Your task to perform on an android device: check android version Image 0: 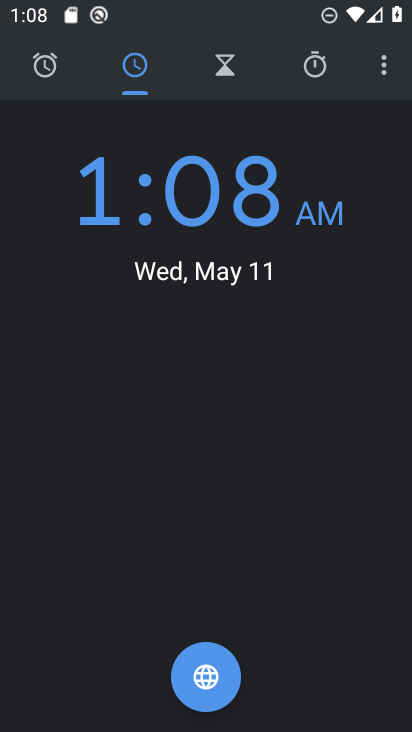
Step 0: press home button
Your task to perform on an android device: check android version Image 1: 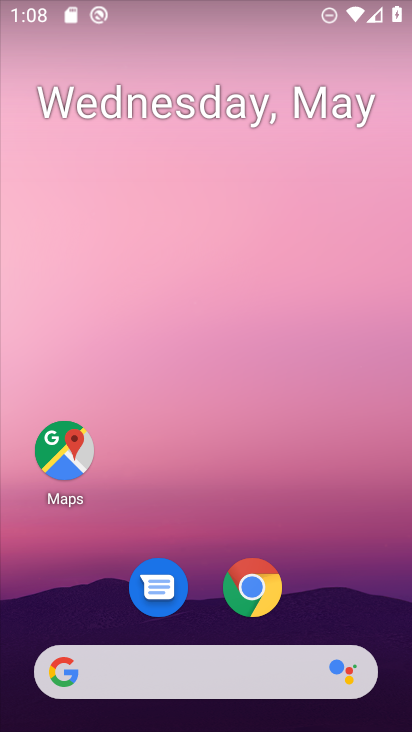
Step 1: click (331, 120)
Your task to perform on an android device: check android version Image 2: 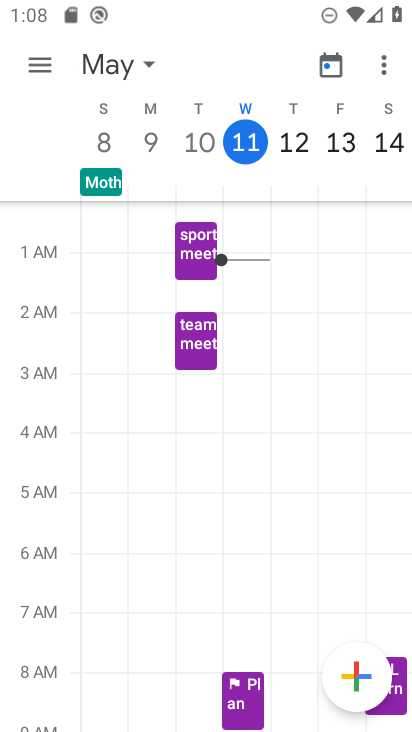
Step 2: press home button
Your task to perform on an android device: check android version Image 3: 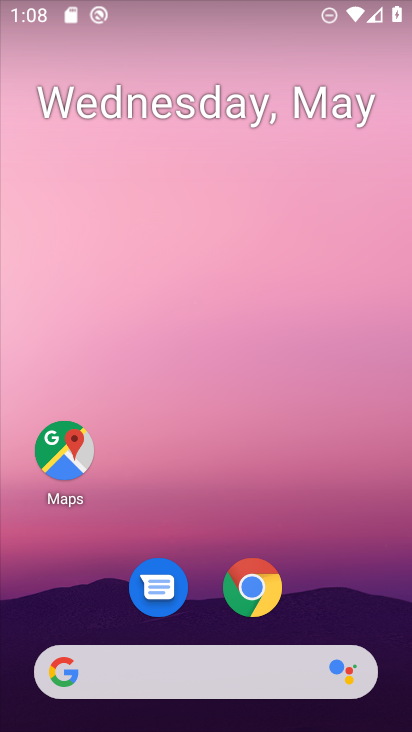
Step 3: drag from (289, 578) to (297, 8)
Your task to perform on an android device: check android version Image 4: 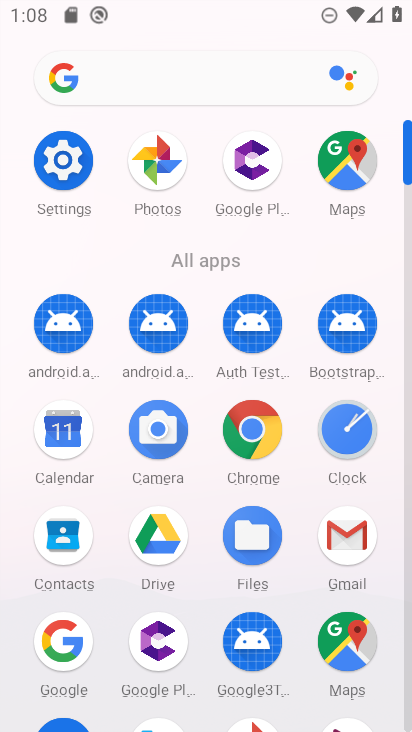
Step 4: click (61, 191)
Your task to perform on an android device: check android version Image 5: 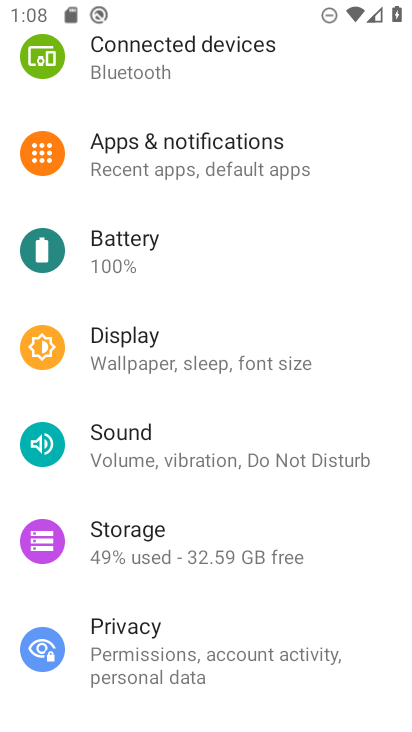
Step 5: drag from (183, 588) to (179, 310)
Your task to perform on an android device: check android version Image 6: 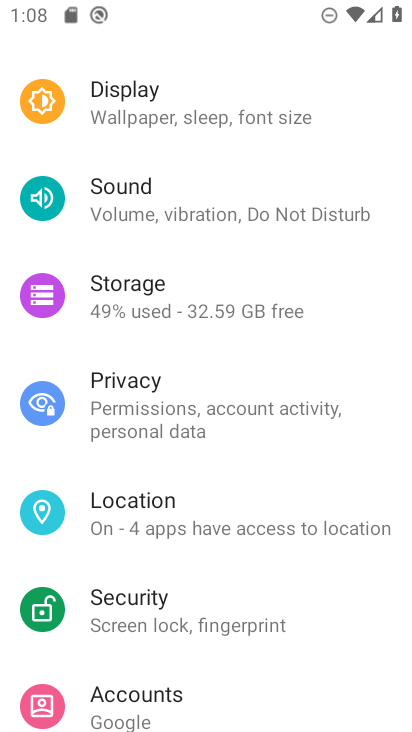
Step 6: drag from (159, 616) to (201, 335)
Your task to perform on an android device: check android version Image 7: 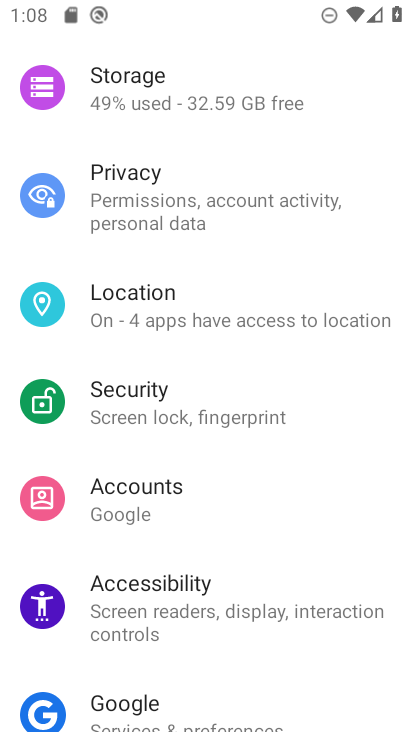
Step 7: drag from (175, 703) to (199, 315)
Your task to perform on an android device: check android version Image 8: 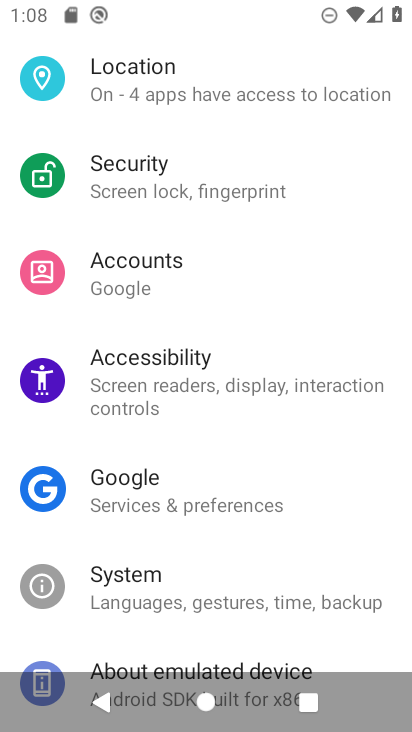
Step 8: click (170, 636)
Your task to perform on an android device: check android version Image 9: 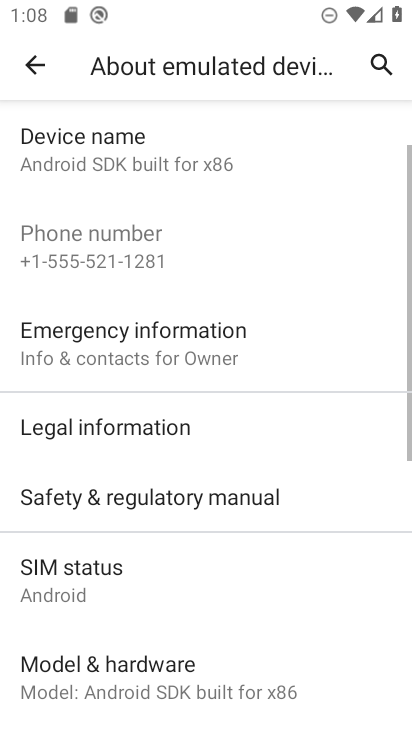
Step 9: task complete